Your task to perform on an android device: remove spam from my inbox in the gmail app Image 0: 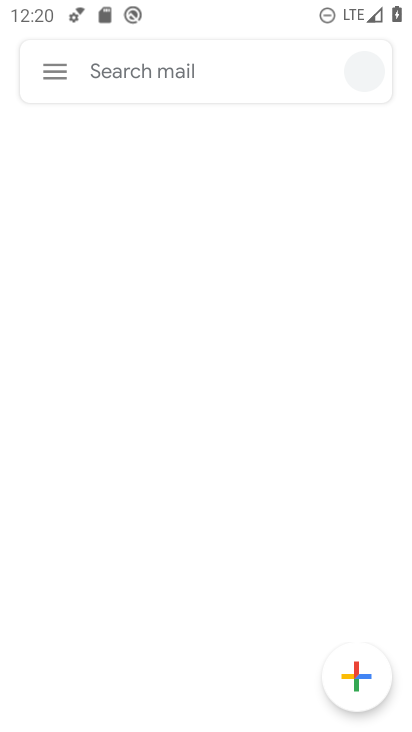
Step 0: drag from (227, 652) to (227, 208)
Your task to perform on an android device: remove spam from my inbox in the gmail app Image 1: 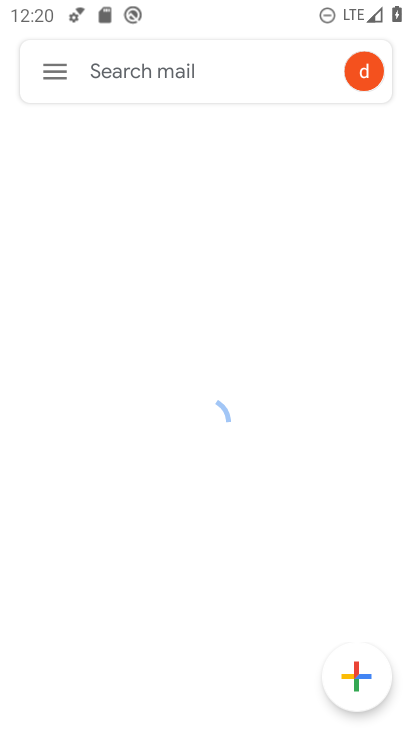
Step 1: press home button
Your task to perform on an android device: remove spam from my inbox in the gmail app Image 2: 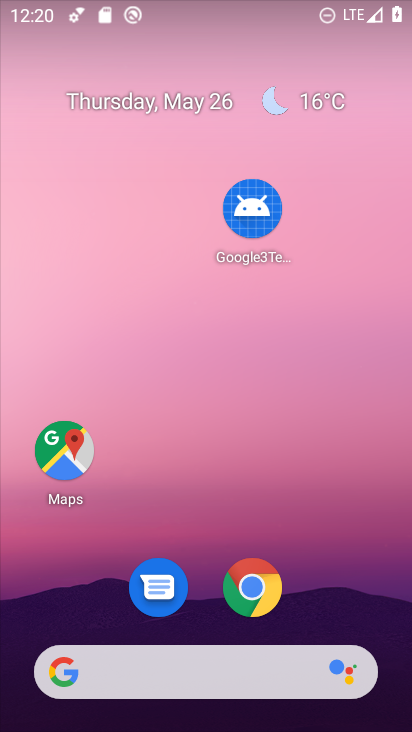
Step 2: drag from (235, 643) to (243, 153)
Your task to perform on an android device: remove spam from my inbox in the gmail app Image 3: 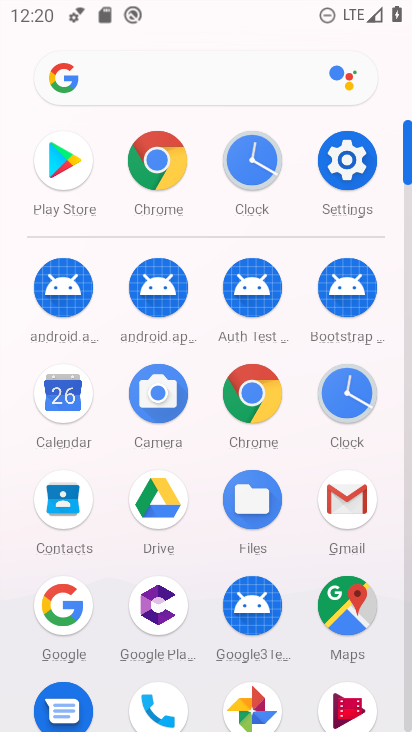
Step 3: click (352, 494)
Your task to perform on an android device: remove spam from my inbox in the gmail app Image 4: 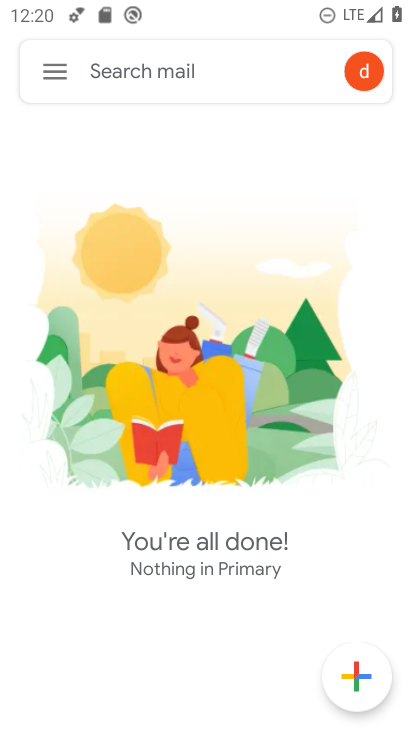
Step 4: click (52, 64)
Your task to perform on an android device: remove spam from my inbox in the gmail app Image 5: 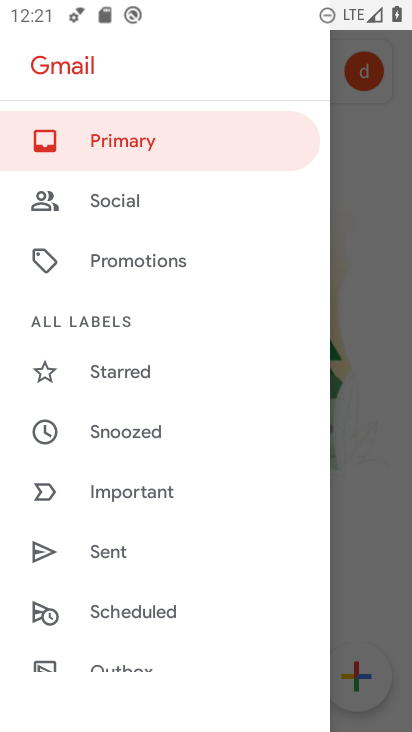
Step 5: drag from (113, 521) to (126, 116)
Your task to perform on an android device: remove spam from my inbox in the gmail app Image 6: 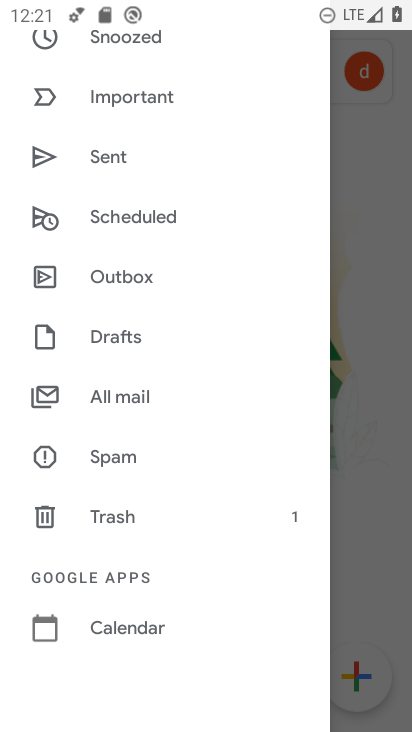
Step 6: click (113, 461)
Your task to perform on an android device: remove spam from my inbox in the gmail app Image 7: 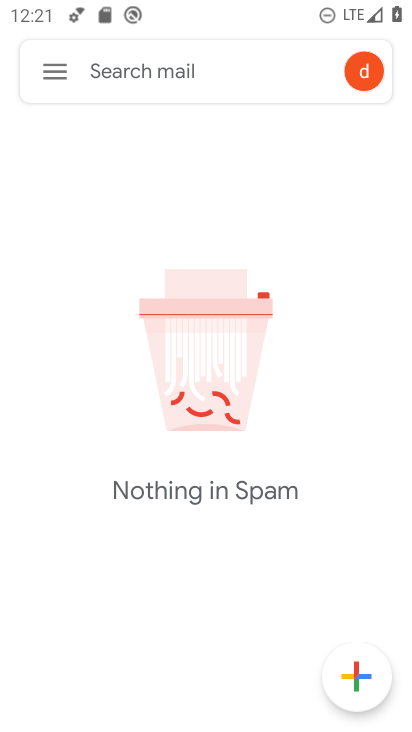
Step 7: task complete